Your task to perform on an android device: Go to calendar. Show me events next week Image 0: 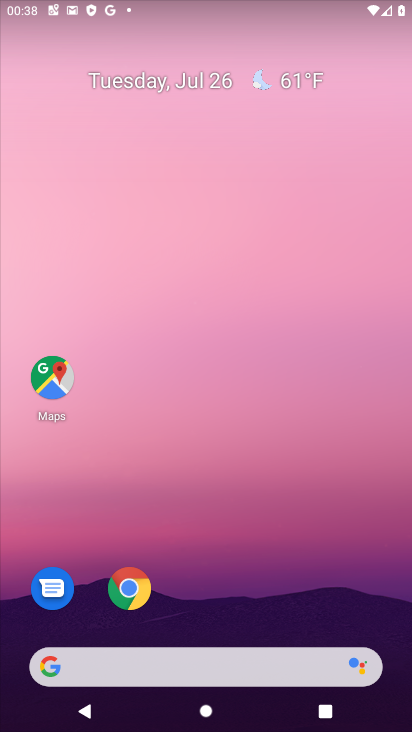
Step 0: drag from (212, 622) to (260, 21)
Your task to perform on an android device: Go to calendar. Show me events next week Image 1: 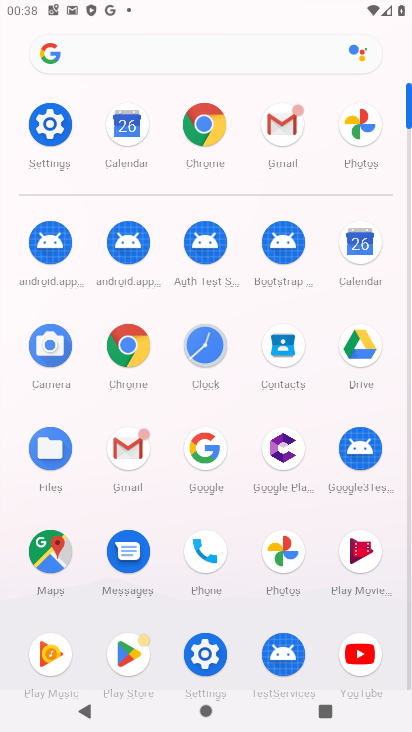
Step 1: click (361, 236)
Your task to perform on an android device: Go to calendar. Show me events next week Image 2: 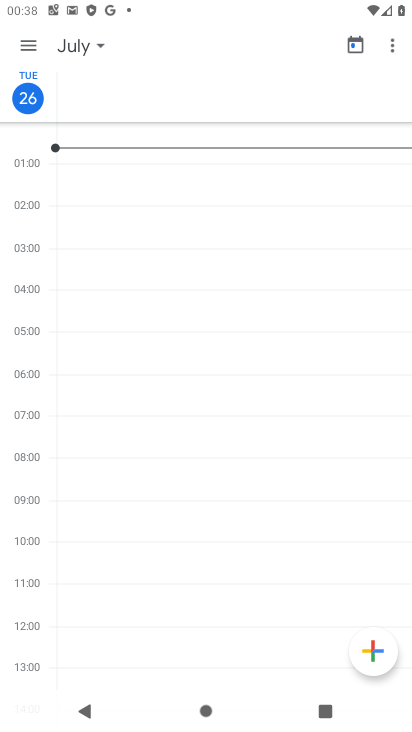
Step 2: click (26, 46)
Your task to perform on an android device: Go to calendar. Show me events next week Image 3: 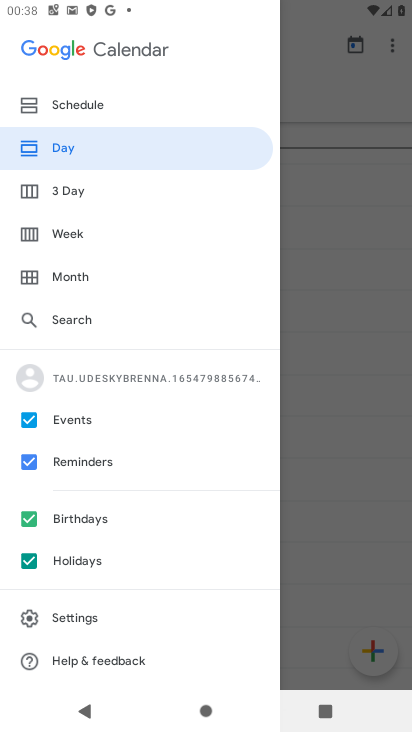
Step 3: click (70, 233)
Your task to perform on an android device: Go to calendar. Show me events next week Image 4: 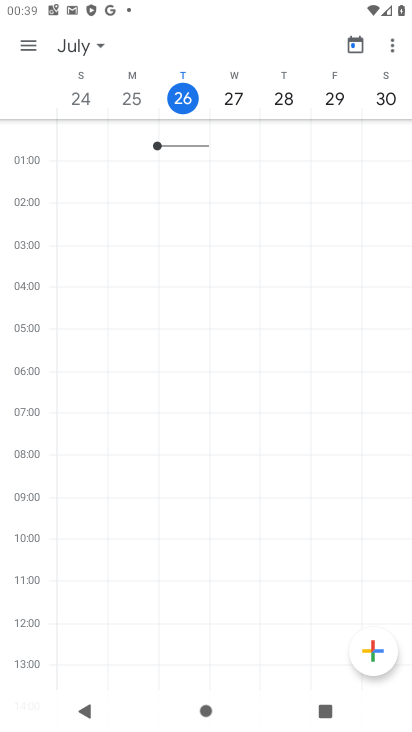
Step 4: task complete